Your task to perform on an android device: Open the map Image 0: 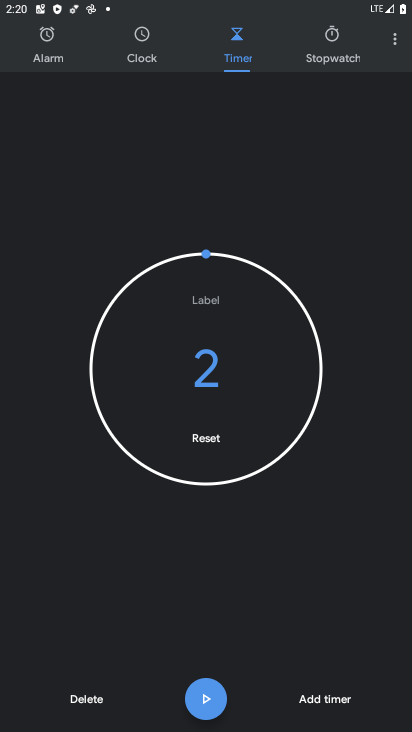
Step 0: press home button
Your task to perform on an android device: Open the map Image 1: 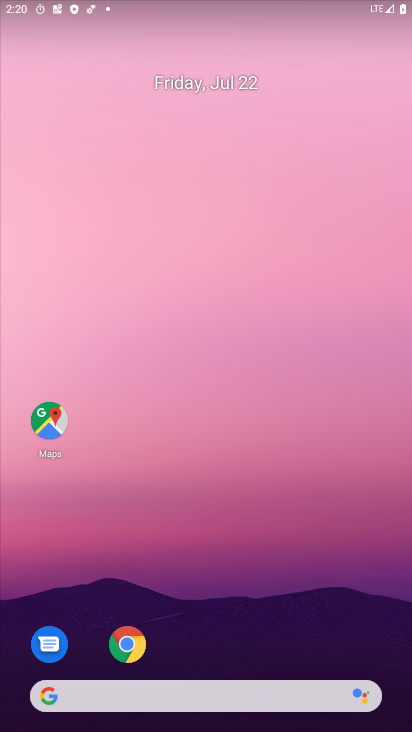
Step 1: drag from (251, 651) to (257, 215)
Your task to perform on an android device: Open the map Image 2: 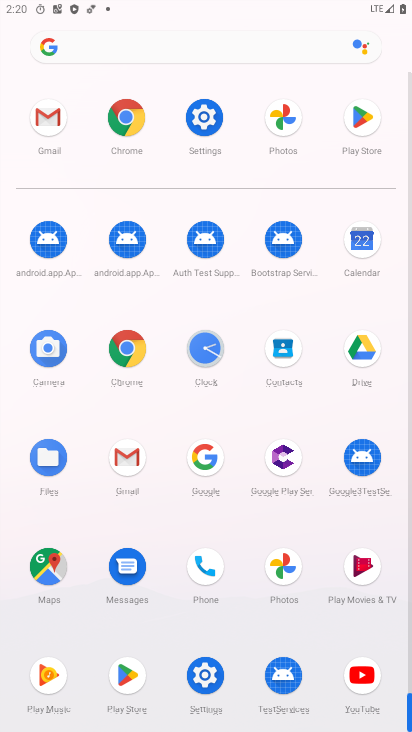
Step 2: click (55, 579)
Your task to perform on an android device: Open the map Image 3: 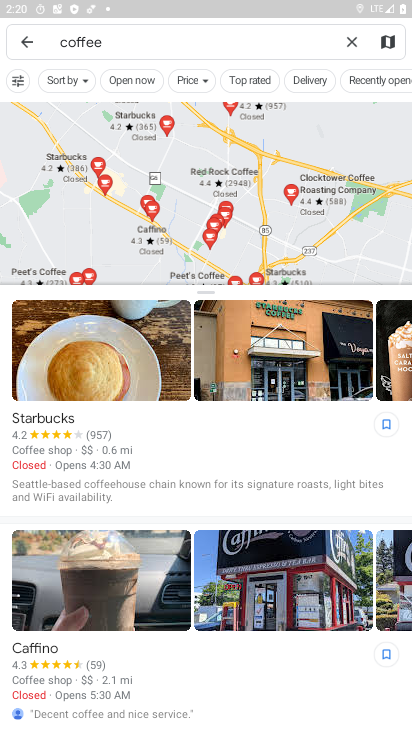
Step 3: task complete